Your task to perform on an android device: Do I have any events tomorrow? Image 0: 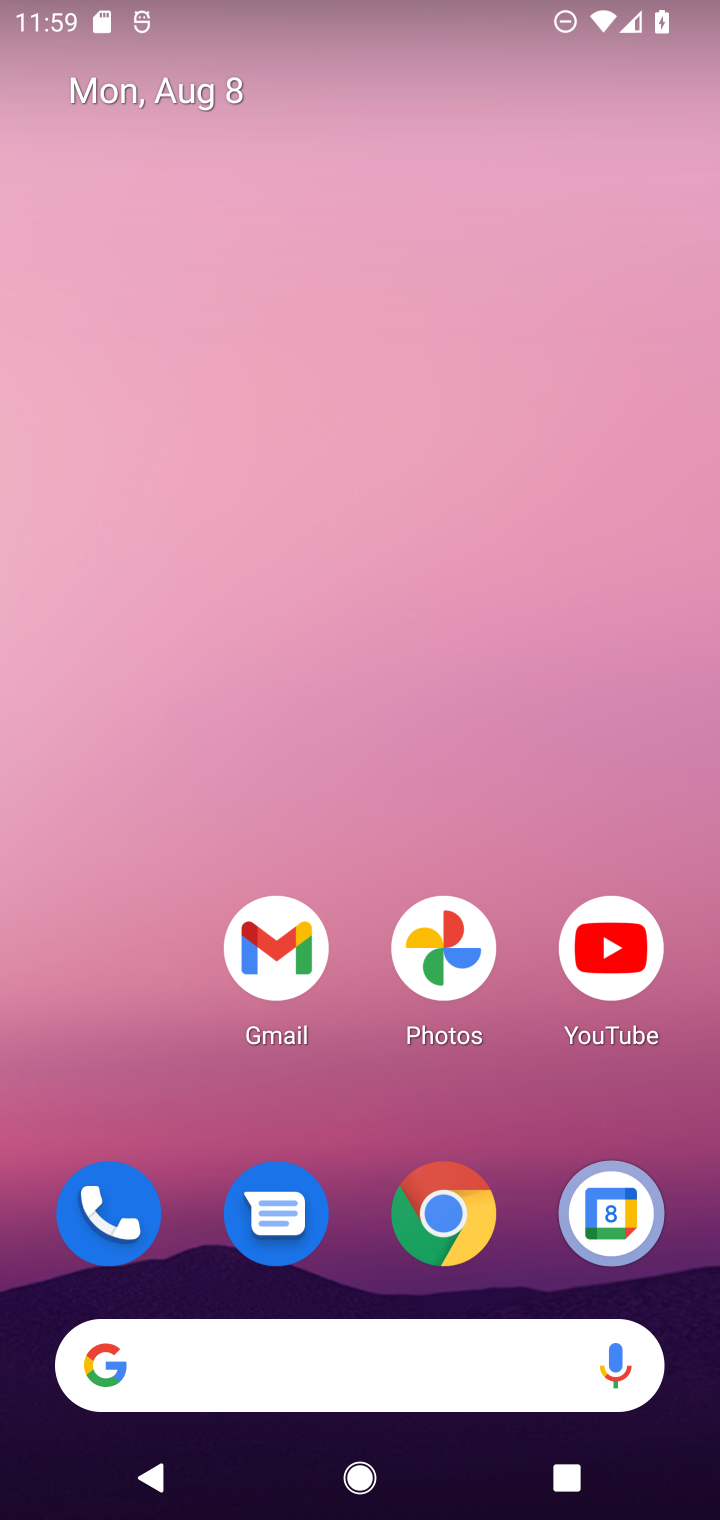
Step 0: press home button
Your task to perform on an android device: Do I have any events tomorrow? Image 1: 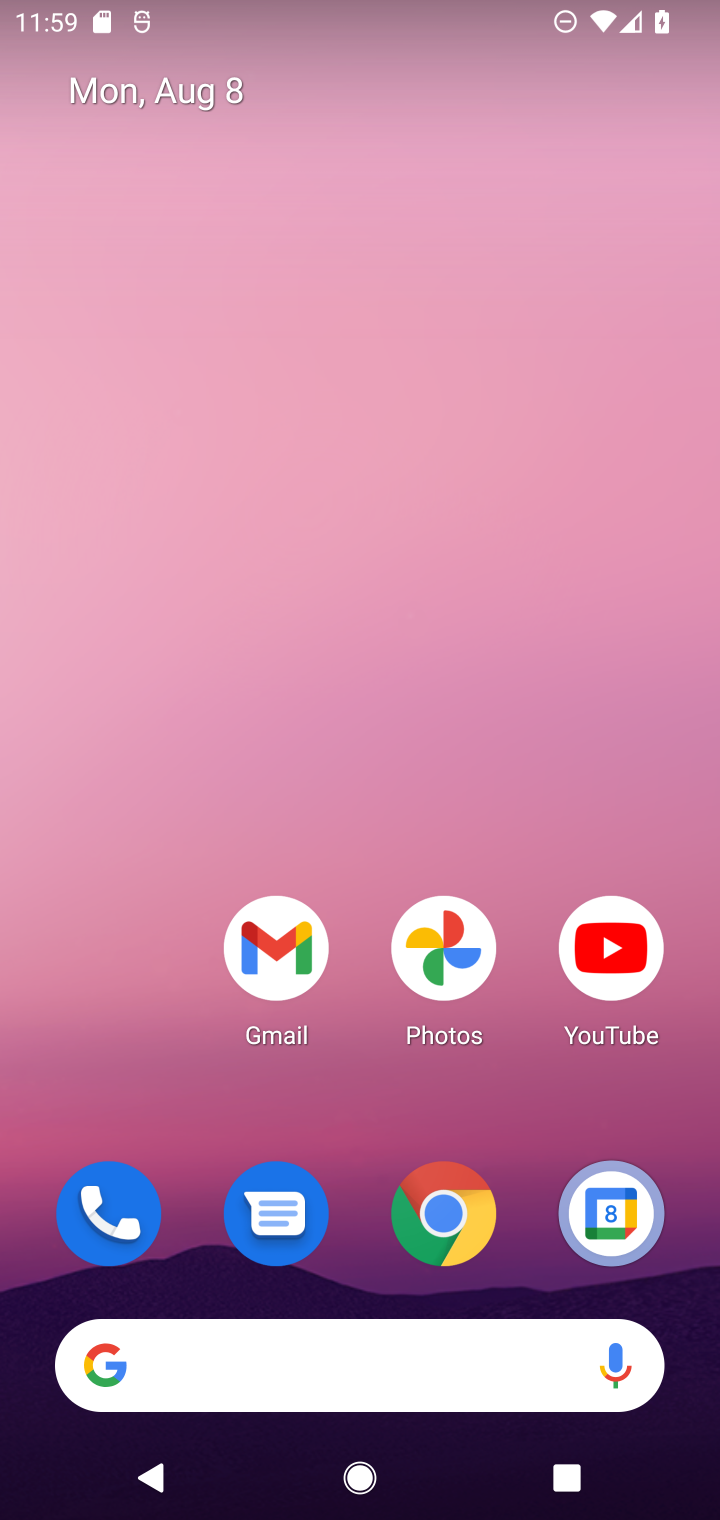
Step 1: click (619, 1196)
Your task to perform on an android device: Do I have any events tomorrow? Image 2: 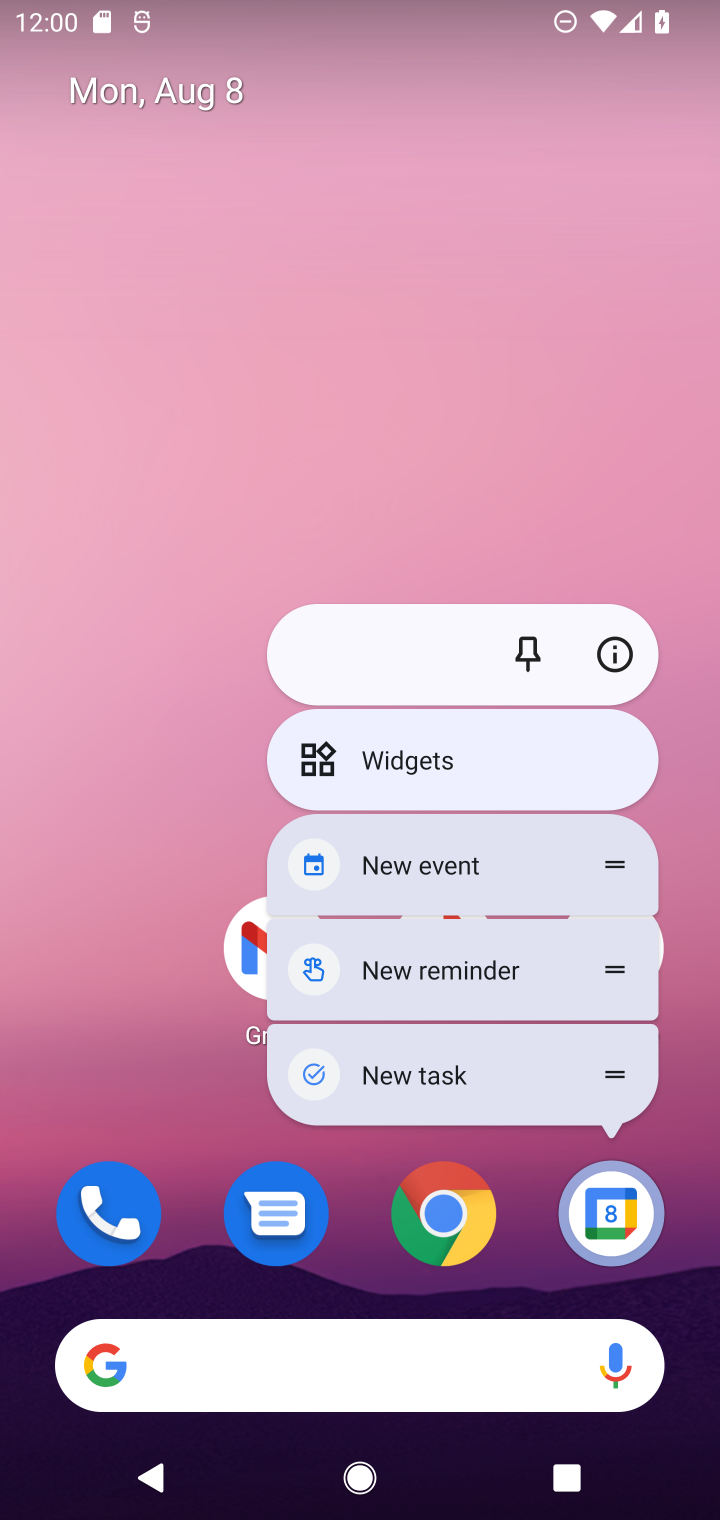
Step 2: click (162, 775)
Your task to perform on an android device: Do I have any events tomorrow? Image 3: 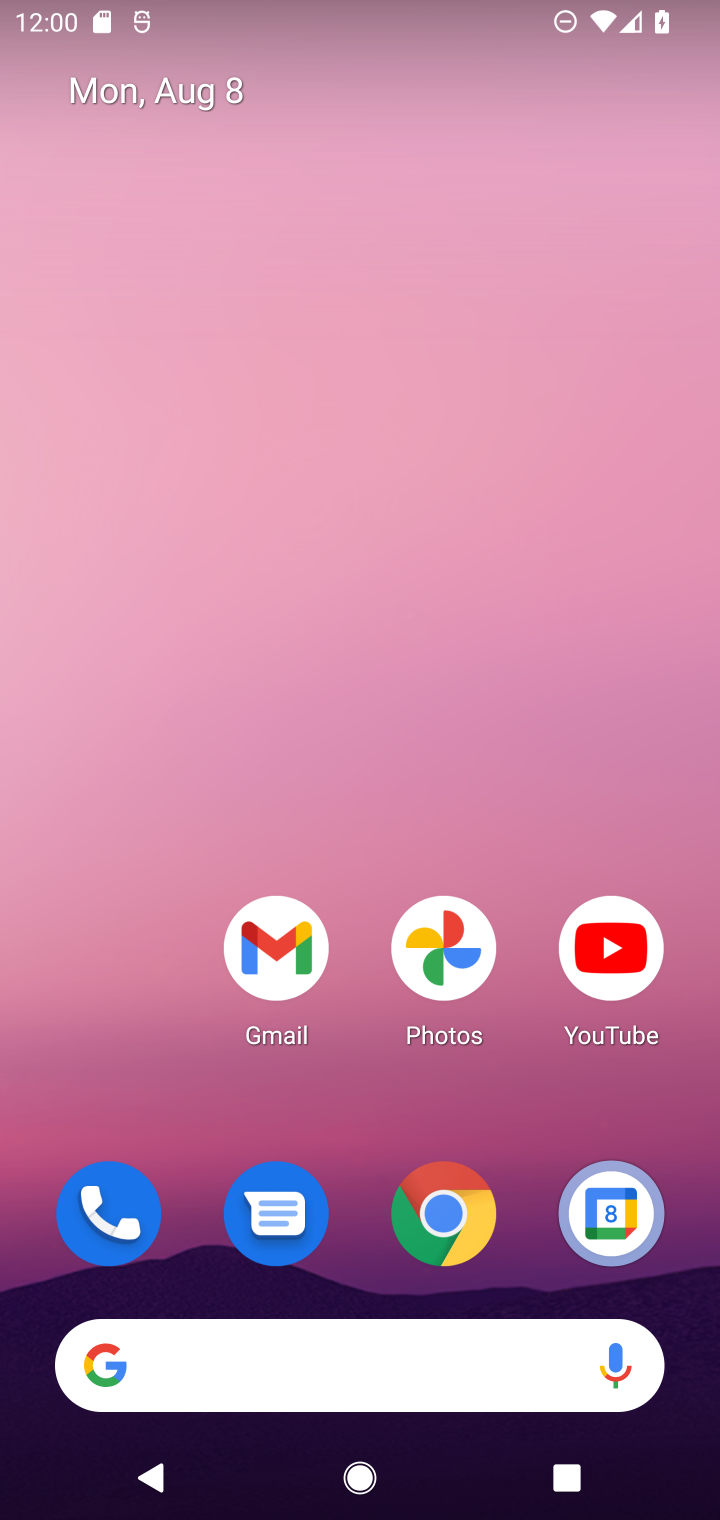
Step 3: drag from (148, 1119) to (220, 2)
Your task to perform on an android device: Do I have any events tomorrow? Image 4: 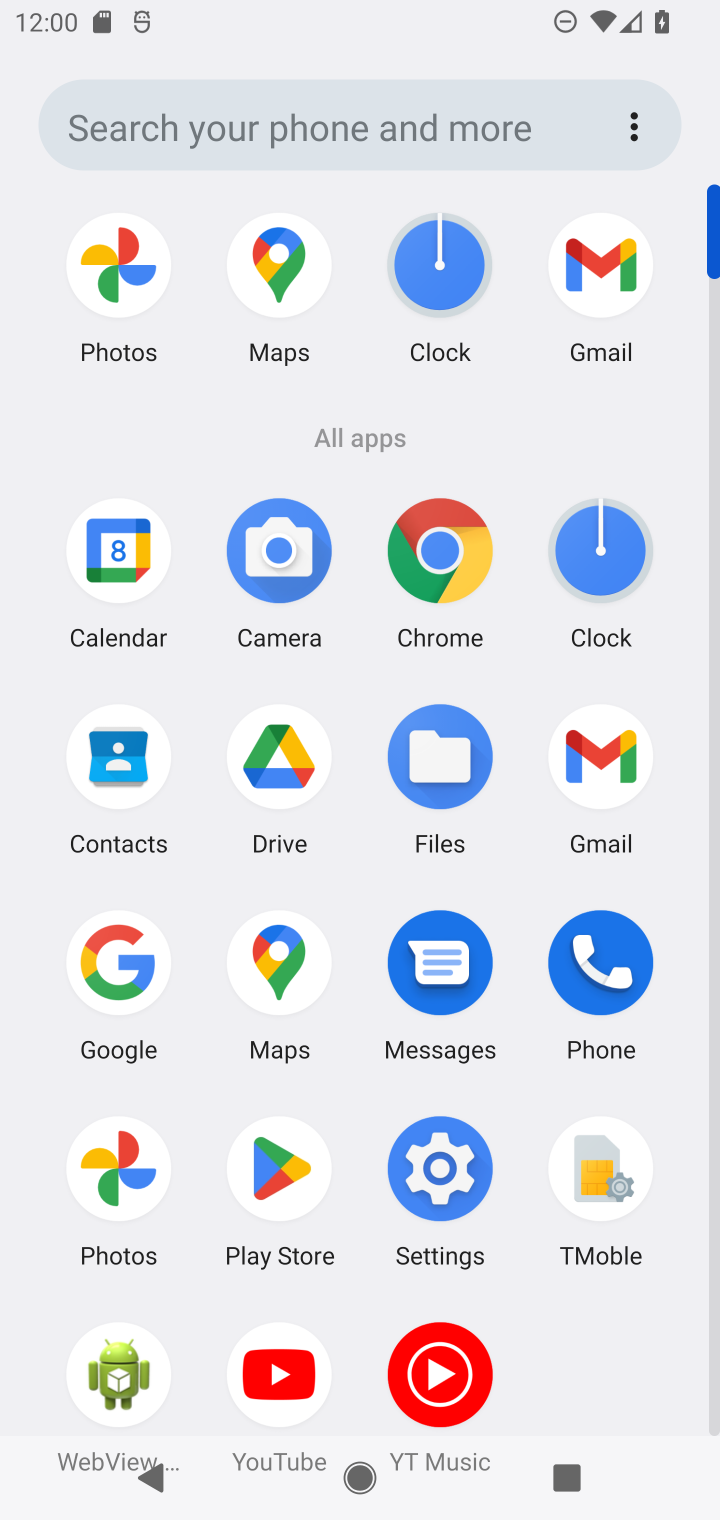
Step 4: click (112, 546)
Your task to perform on an android device: Do I have any events tomorrow? Image 5: 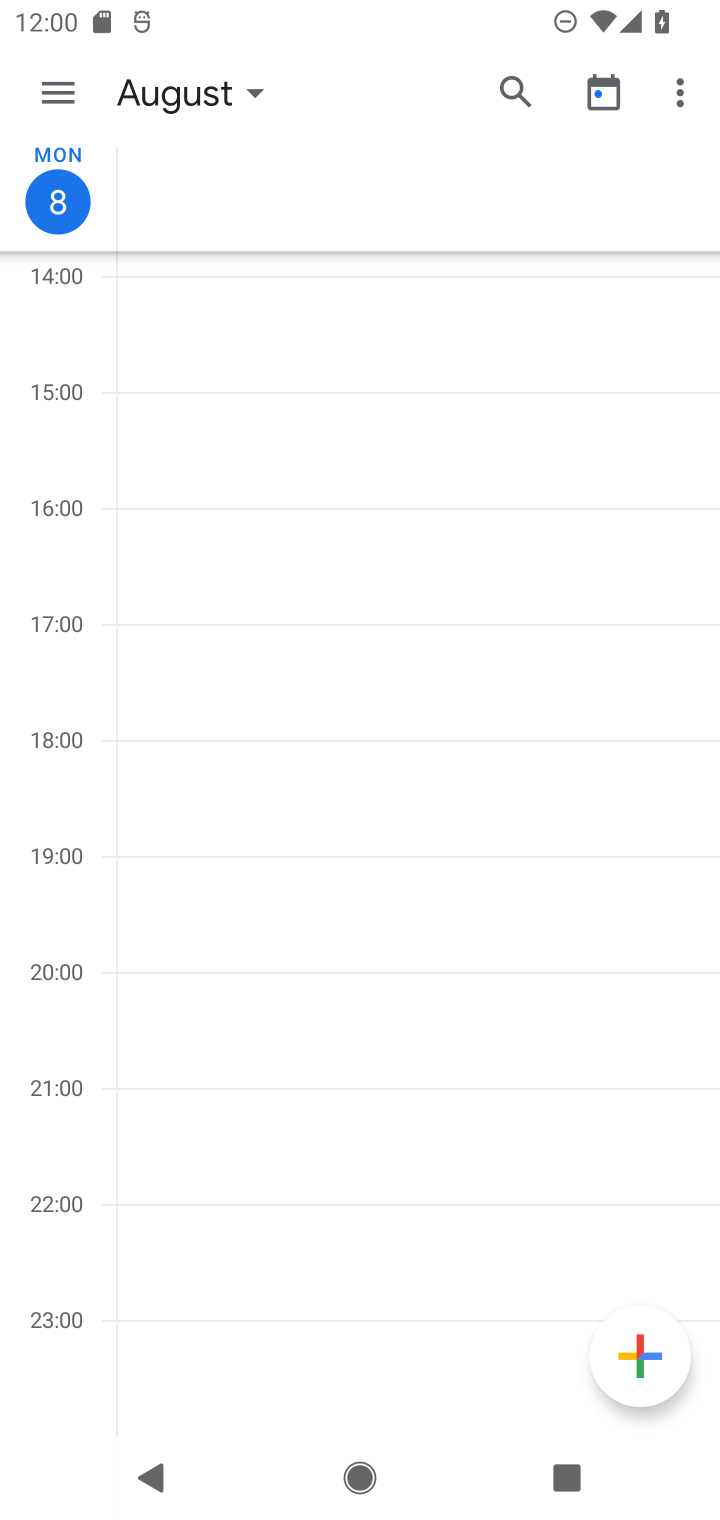
Step 5: click (247, 87)
Your task to perform on an android device: Do I have any events tomorrow? Image 6: 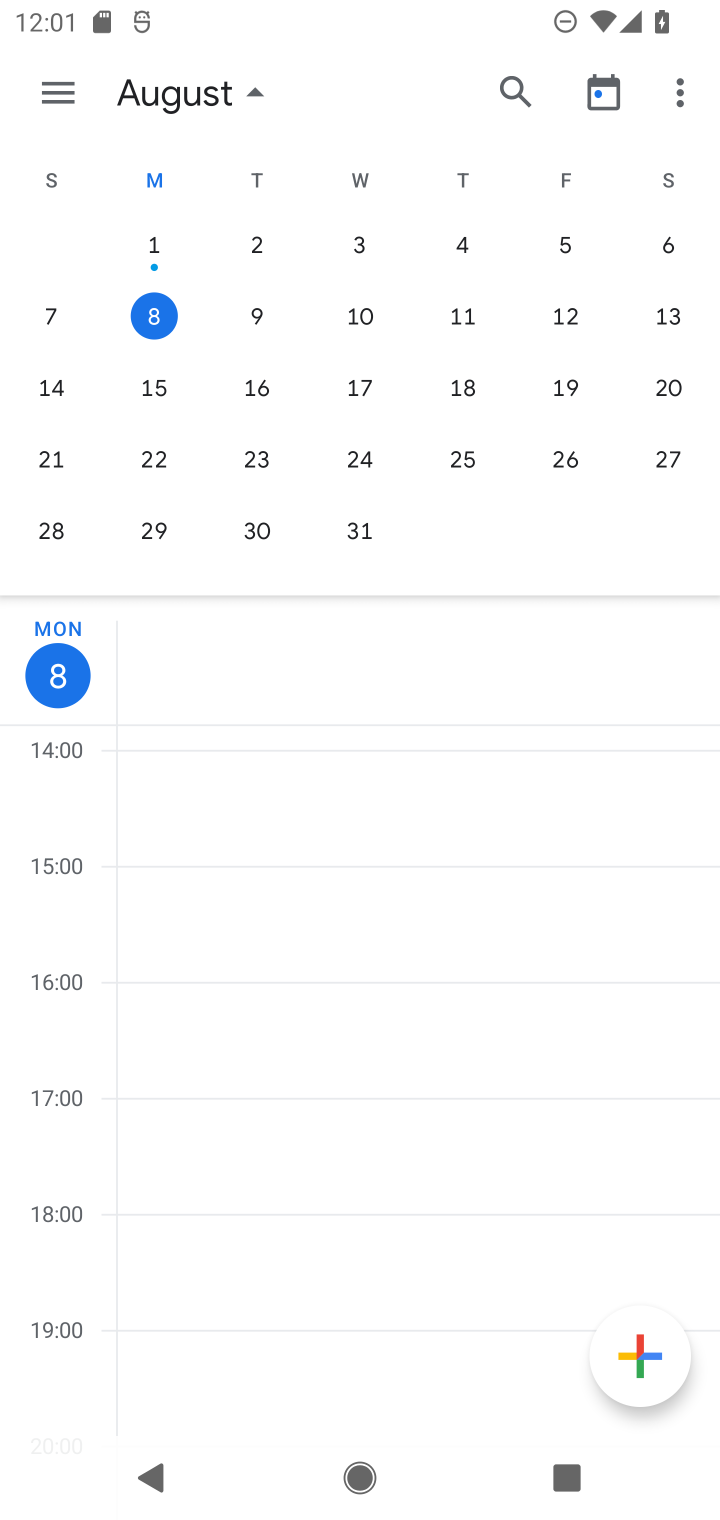
Step 6: click (242, 318)
Your task to perform on an android device: Do I have any events tomorrow? Image 7: 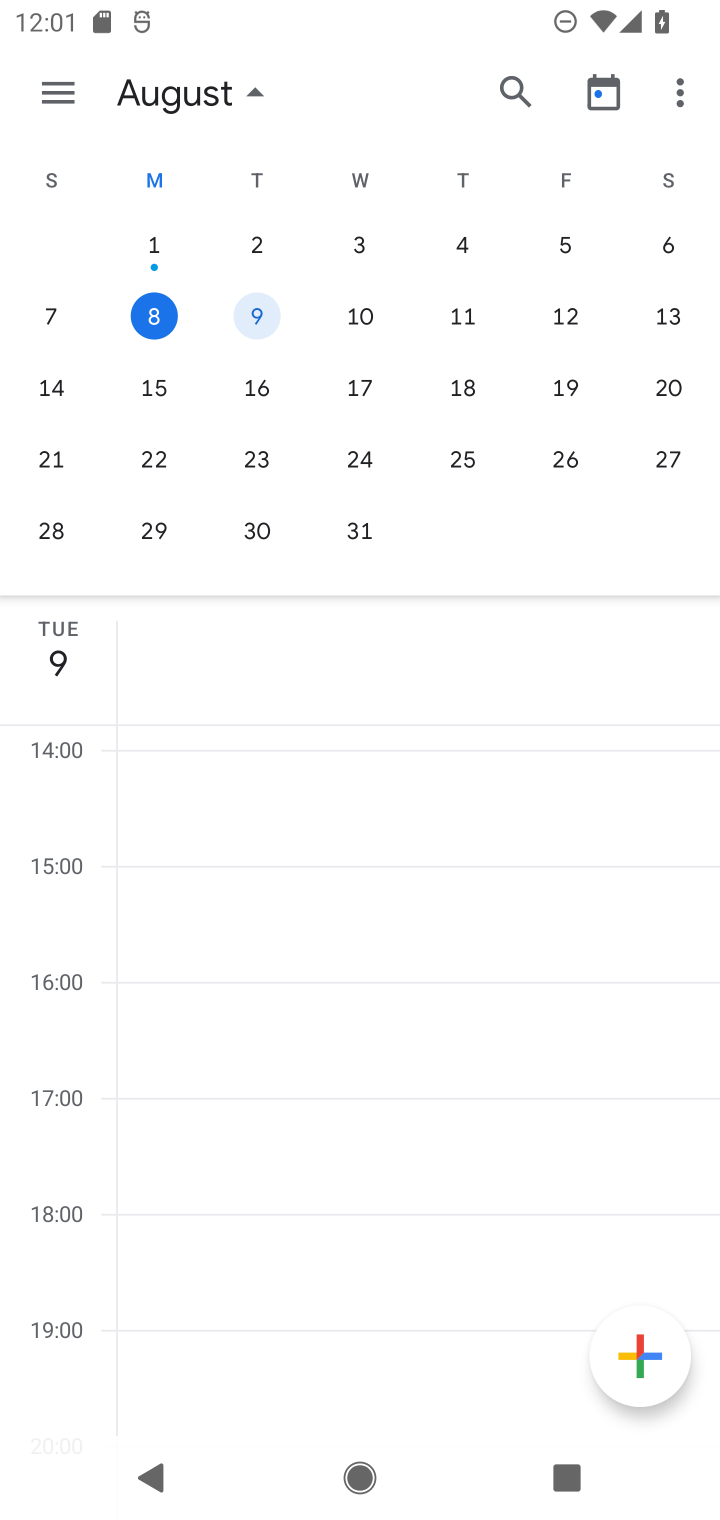
Step 7: click (239, 86)
Your task to perform on an android device: Do I have any events tomorrow? Image 8: 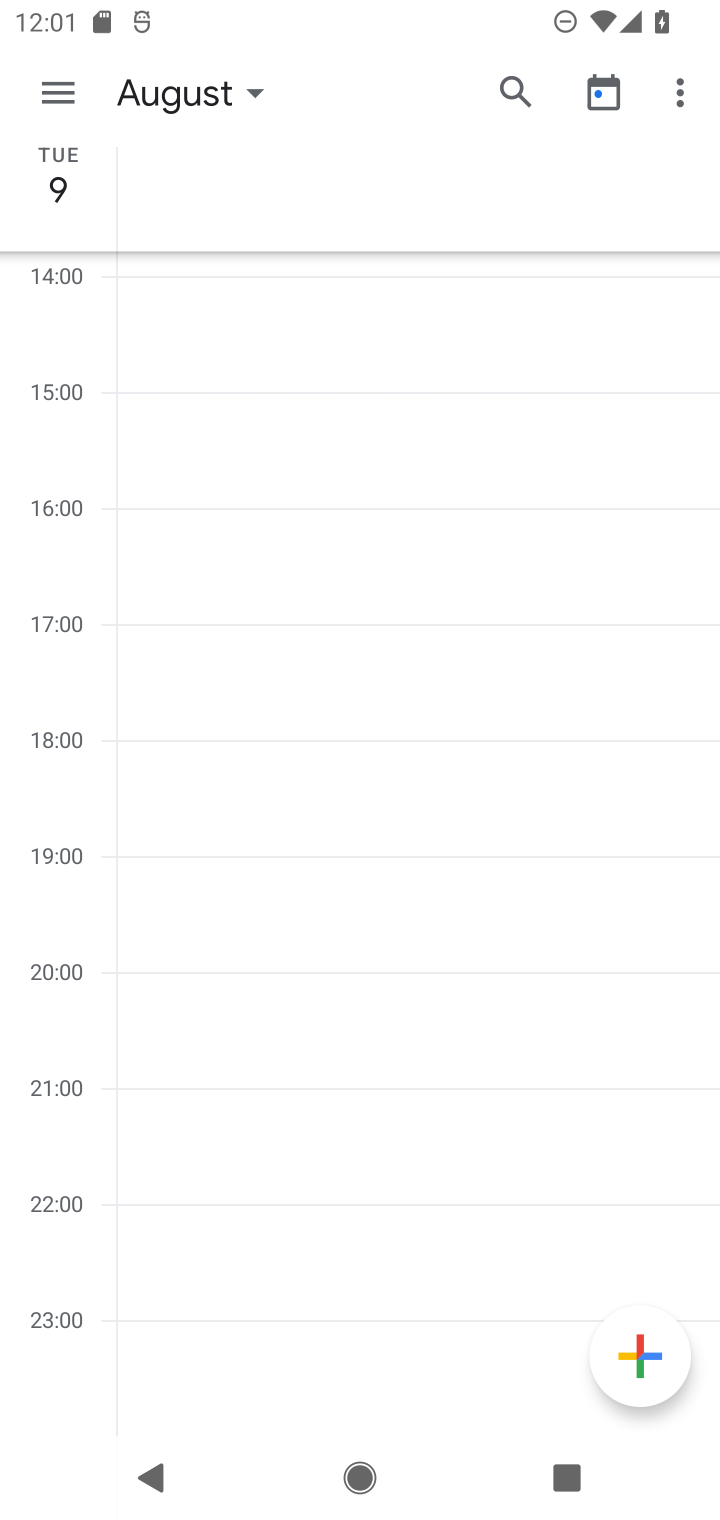
Step 8: task complete